Your task to perform on an android device: check data usage Image 0: 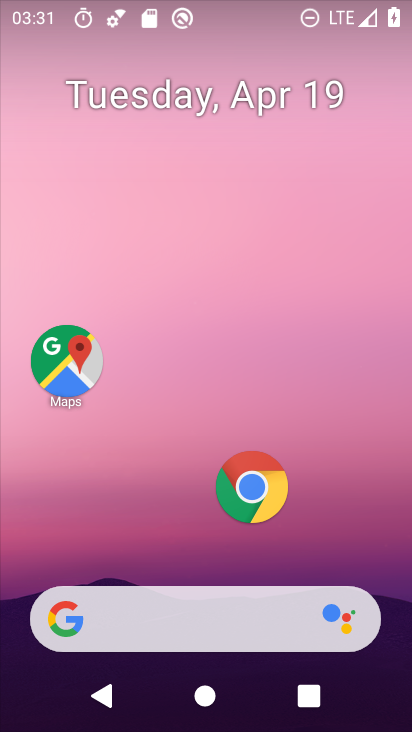
Step 0: drag from (195, 579) to (219, 36)
Your task to perform on an android device: check data usage Image 1: 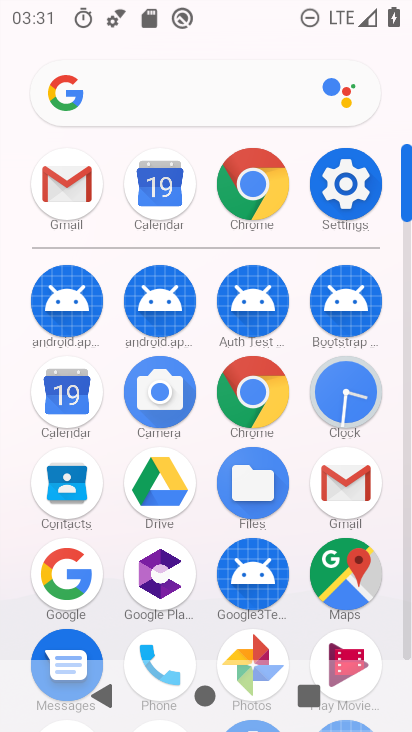
Step 1: click (340, 178)
Your task to perform on an android device: check data usage Image 2: 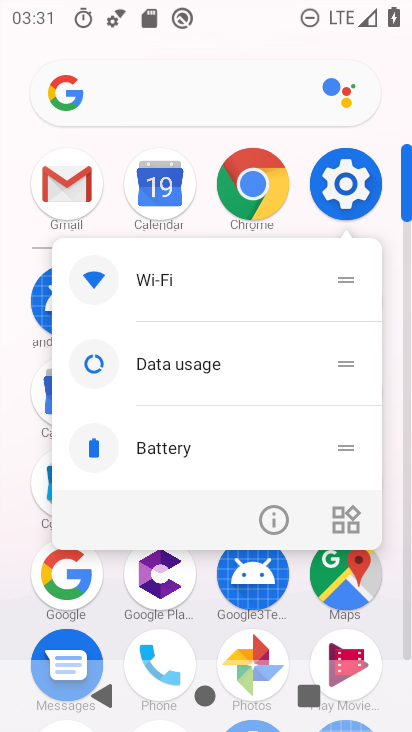
Step 2: click (340, 178)
Your task to perform on an android device: check data usage Image 3: 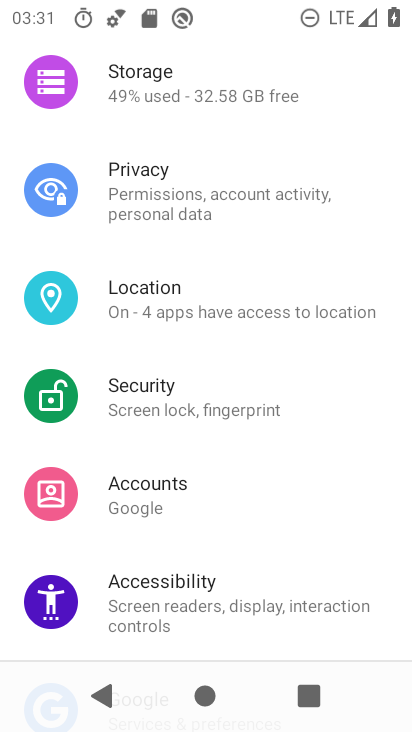
Step 3: drag from (208, 198) to (184, 687)
Your task to perform on an android device: check data usage Image 4: 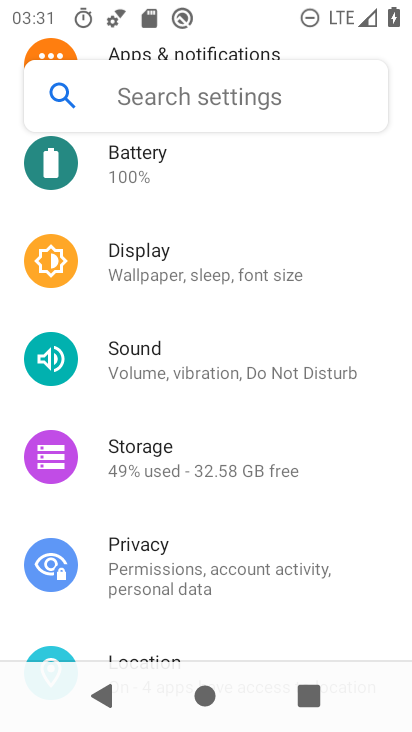
Step 4: drag from (236, 182) to (165, 677)
Your task to perform on an android device: check data usage Image 5: 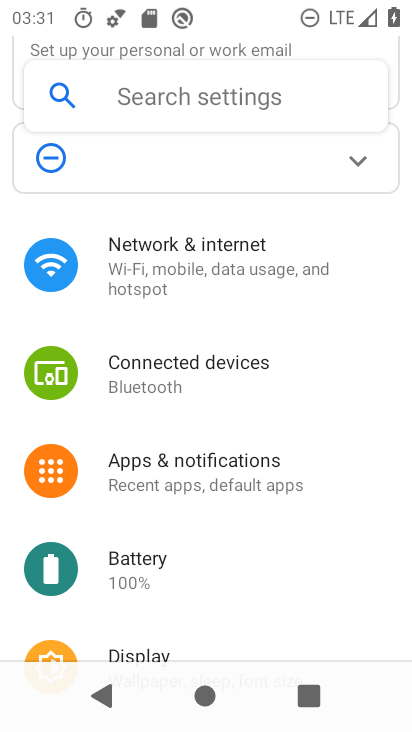
Step 5: click (181, 265)
Your task to perform on an android device: check data usage Image 6: 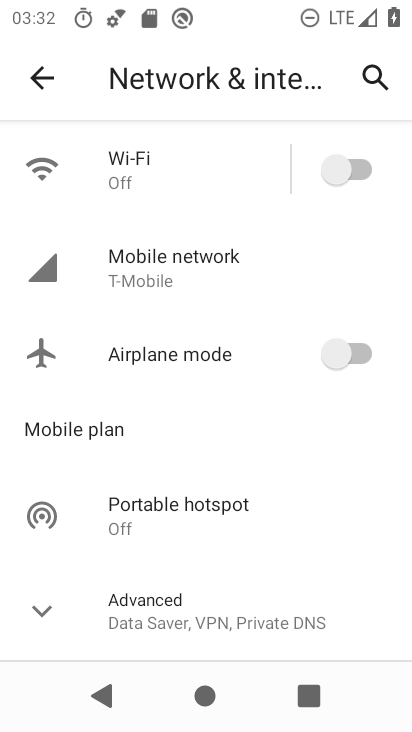
Step 6: click (161, 270)
Your task to perform on an android device: check data usage Image 7: 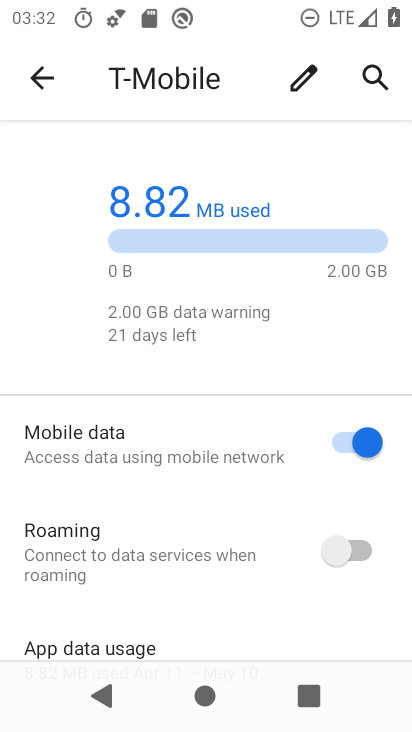
Step 7: drag from (142, 607) to (225, 133)
Your task to perform on an android device: check data usage Image 8: 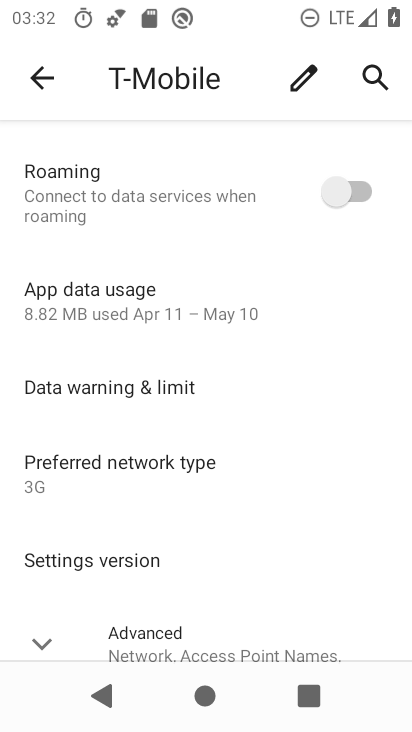
Step 8: click (155, 300)
Your task to perform on an android device: check data usage Image 9: 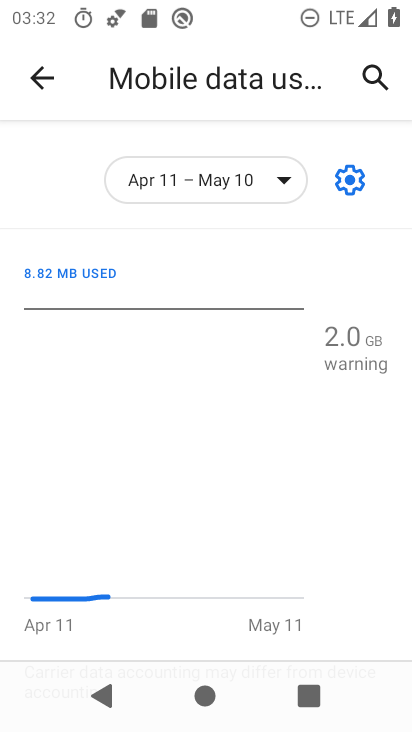
Step 9: task complete